Your task to perform on an android device: find photos in the google photos app Image 0: 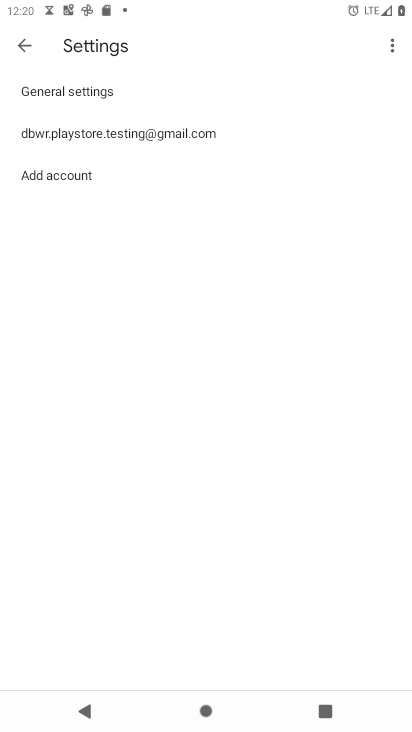
Step 0: press home button
Your task to perform on an android device: find photos in the google photos app Image 1: 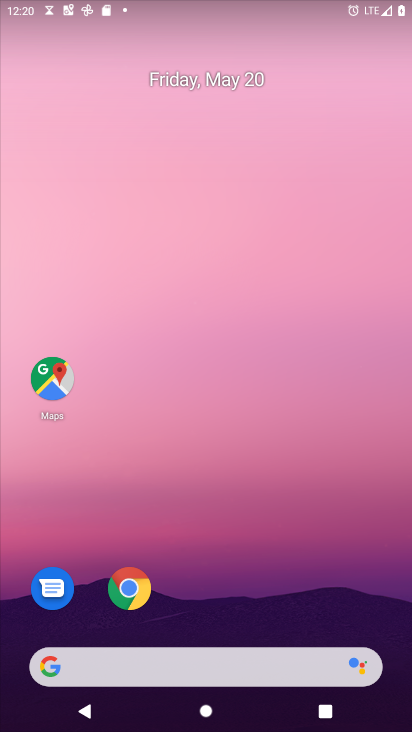
Step 1: drag from (252, 528) to (162, 11)
Your task to perform on an android device: find photos in the google photos app Image 2: 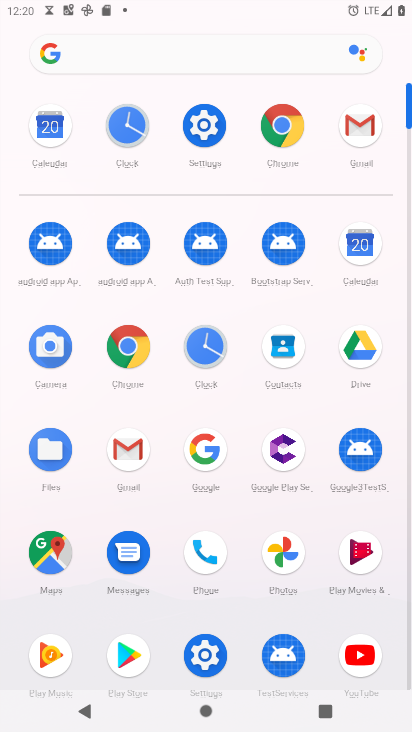
Step 2: click (280, 560)
Your task to perform on an android device: find photos in the google photos app Image 3: 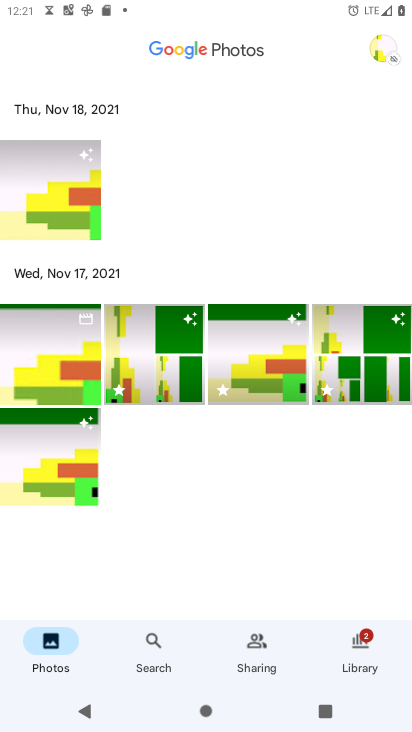
Step 3: task complete